Your task to perform on an android device: toggle translation in the chrome app Image 0: 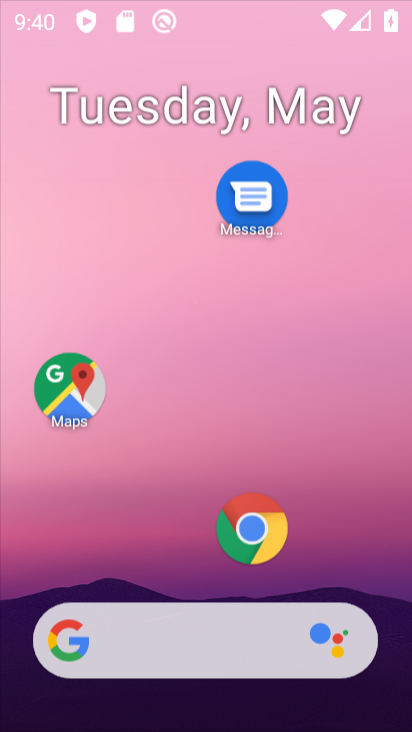
Step 0: click (276, 124)
Your task to perform on an android device: toggle translation in the chrome app Image 1: 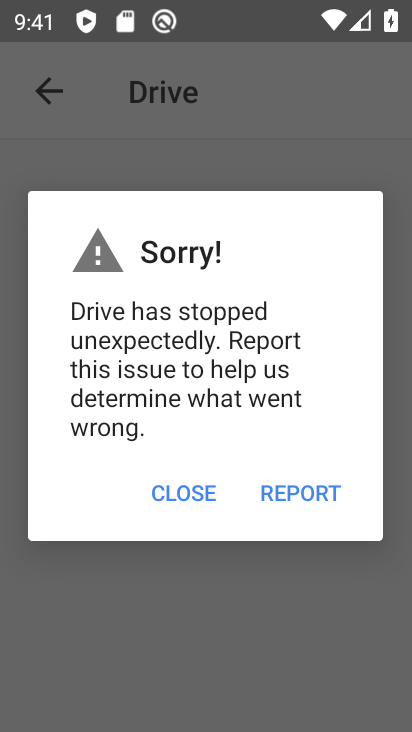
Step 1: press home button
Your task to perform on an android device: toggle translation in the chrome app Image 2: 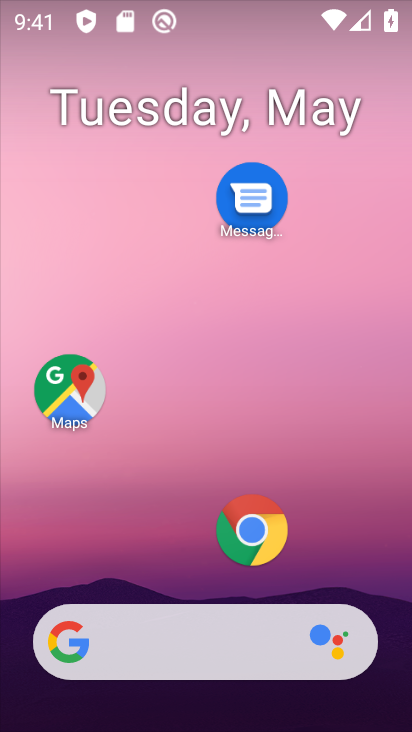
Step 2: drag from (207, 586) to (222, 14)
Your task to perform on an android device: toggle translation in the chrome app Image 3: 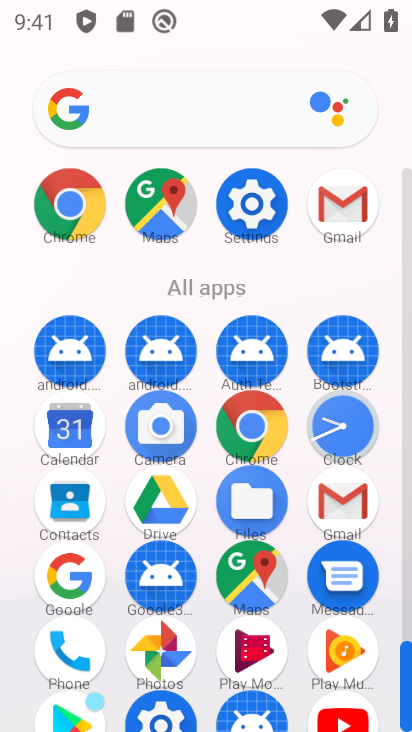
Step 3: click (76, 204)
Your task to perform on an android device: toggle translation in the chrome app Image 4: 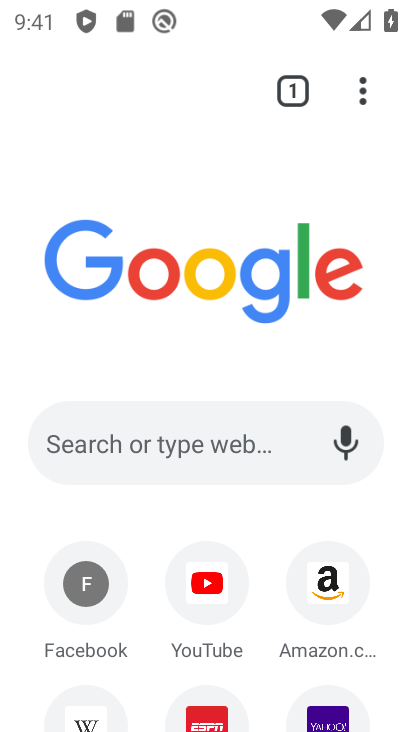
Step 4: click (360, 89)
Your task to perform on an android device: toggle translation in the chrome app Image 5: 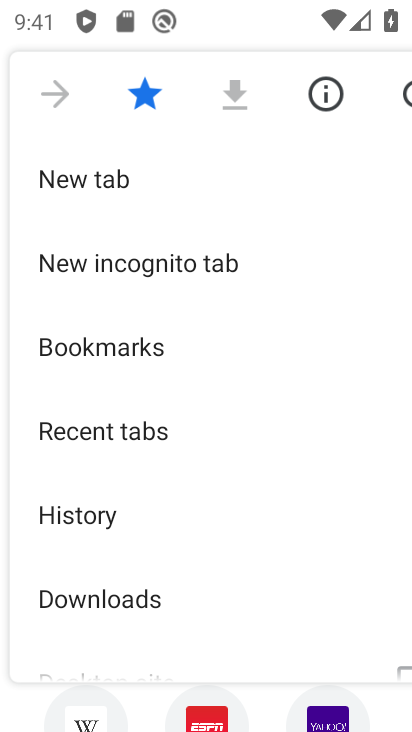
Step 5: drag from (131, 548) to (130, 269)
Your task to perform on an android device: toggle translation in the chrome app Image 6: 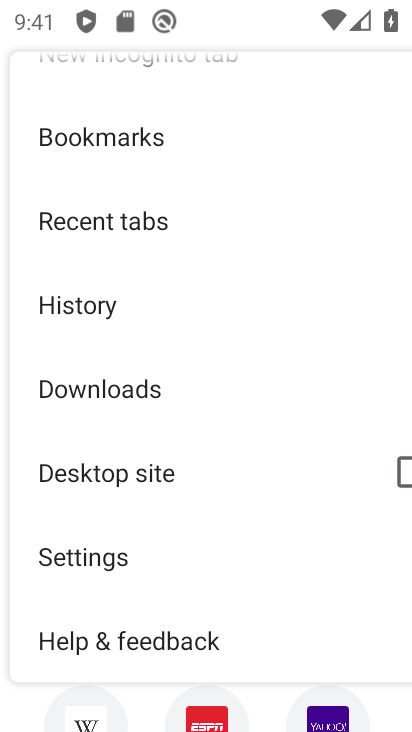
Step 6: click (119, 562)
Your task to perform on an android device: toggle translation in the chrome app Image 7: 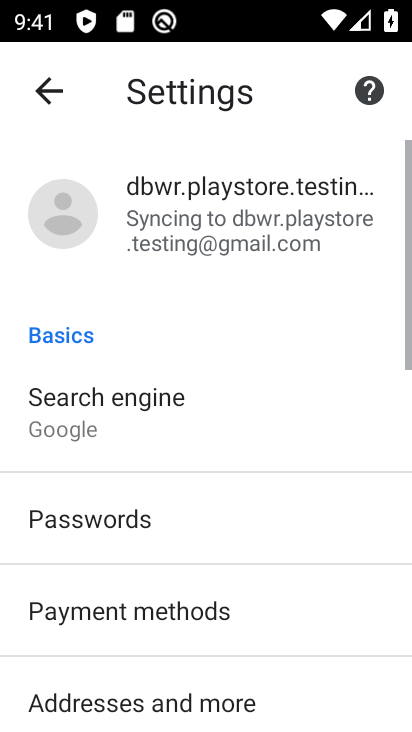
Step 7: drag from (149, 639) to (141, 434)
Your task to perform on an android device: toggle translation in the chrome app Image 8: 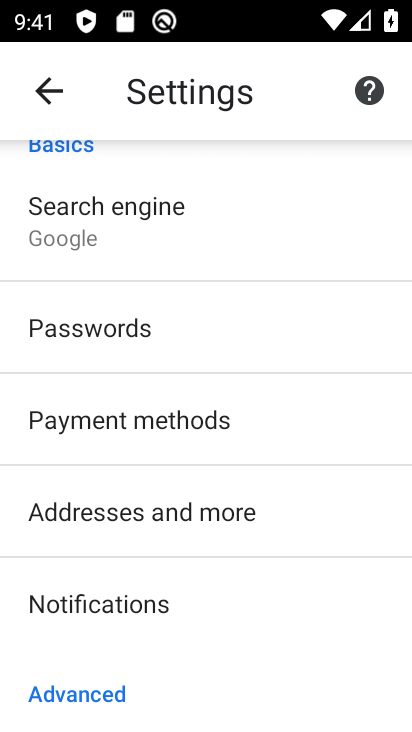
Step 8: drag from (122, 639) to (145, 389)
Your task to perform on an android device: toggle translation in the chrome app Image 9: 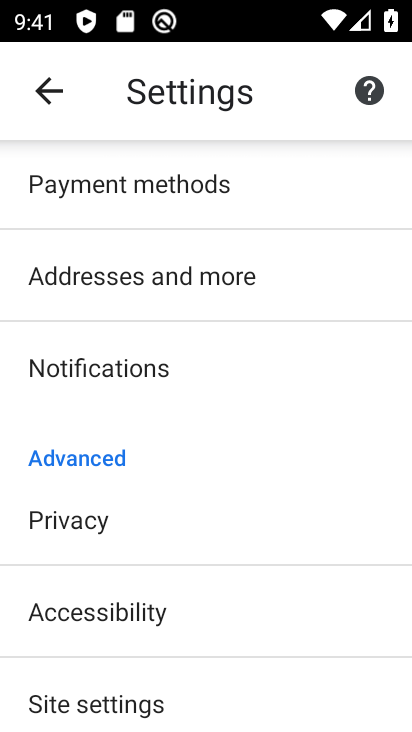
Step 9: drag from (110, 648) to (104, 447)
Your task to perform on an android device: toggle translation in the chrome app Image 10: 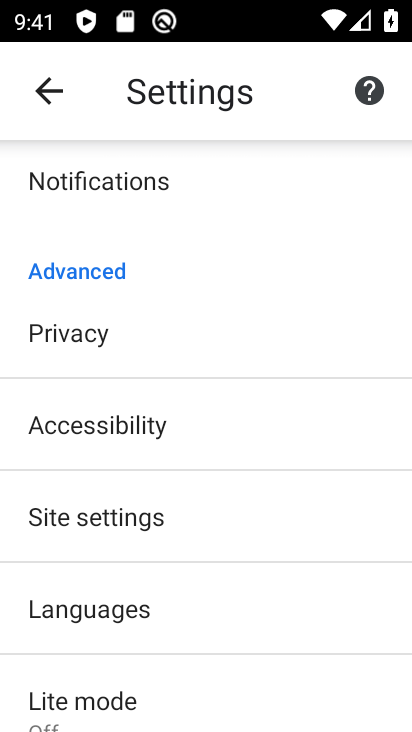
Step 10: click (95, 607)
Your task to perform on an android device: toggle translation in the chrome app Image 11: 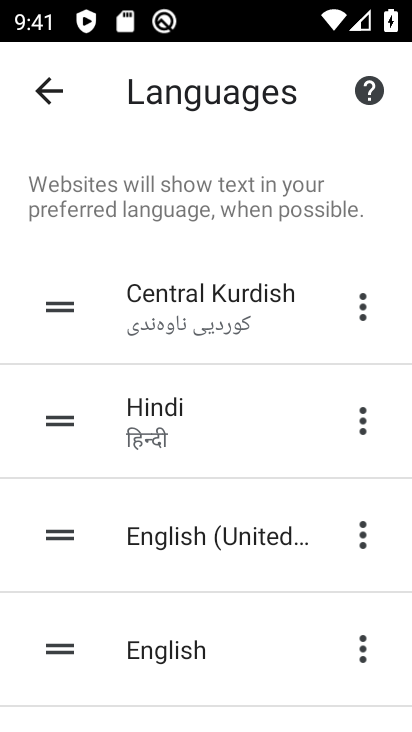
Step 11: drag from (257, 671) to (247, 259)
Your task to perform on an android device: toggle translation in the chrome app Image 12: 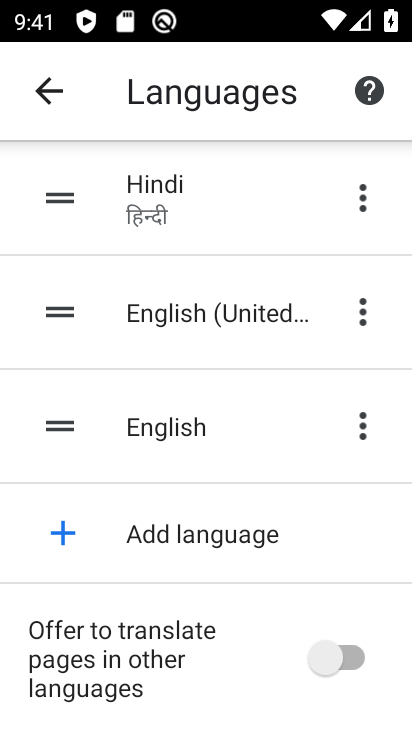
Step 12: click (347, 656)
Your task to perform on an android device: toggle translation in the chrome app Image 13: 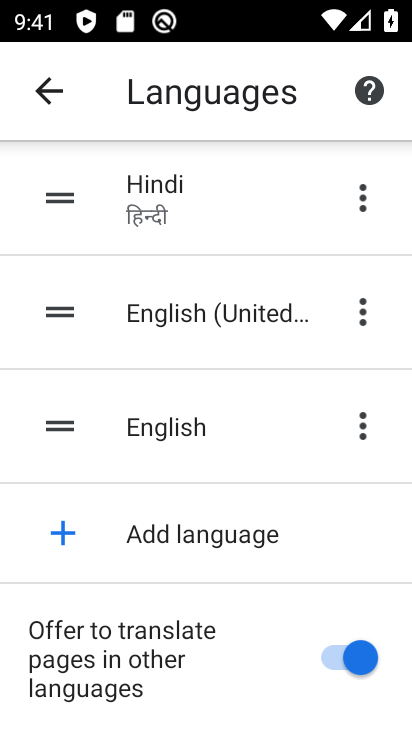
Step 13: task complete